Your task to perform on an android device: Go to network settings Image 0: 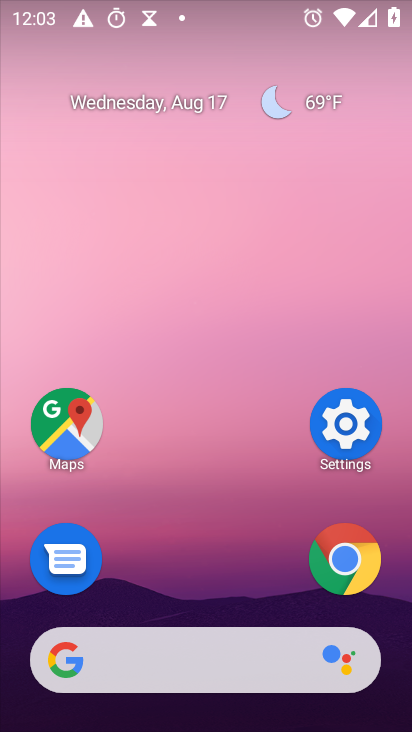
Step 0: click (337, 438)
Your task to perform on an android device: Go to network settings Image 1: 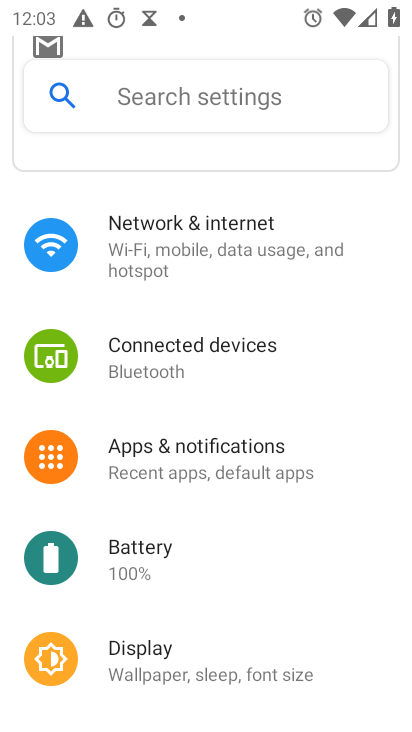
Step 1: click (198, 241)
Your task to perform on an android device: Go to network settings Image 2: 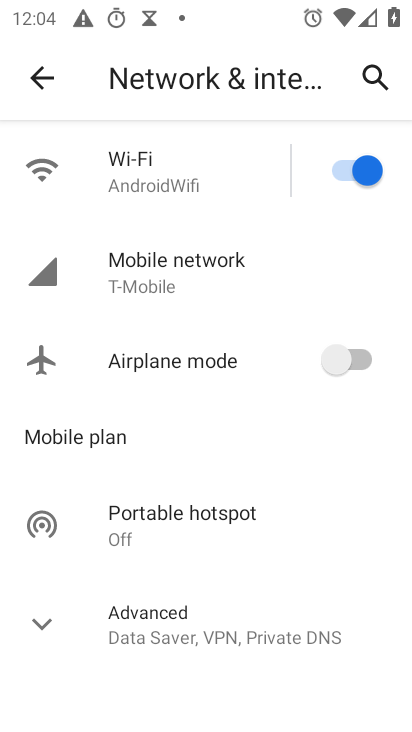
Step 2: task complete